Your task to perform on an android device: check the backup settings in the google photos Image 0: 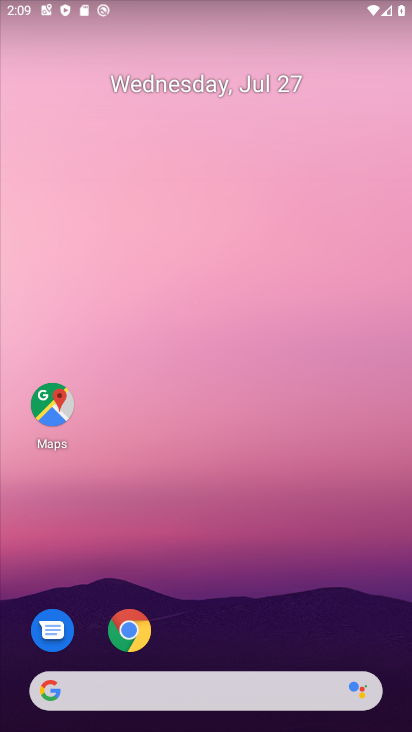
Step 0: drag from (391, 646) to (335, 134)
Your task to perform on an android device: check the backup settings in the google photos Image 1: 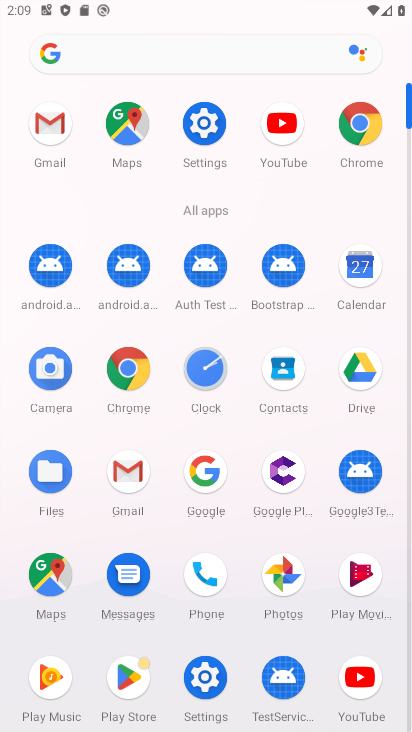
Step 1: click (284, 577)
Your task to perform on an android device: check the backup settings in the google photos Image 2: 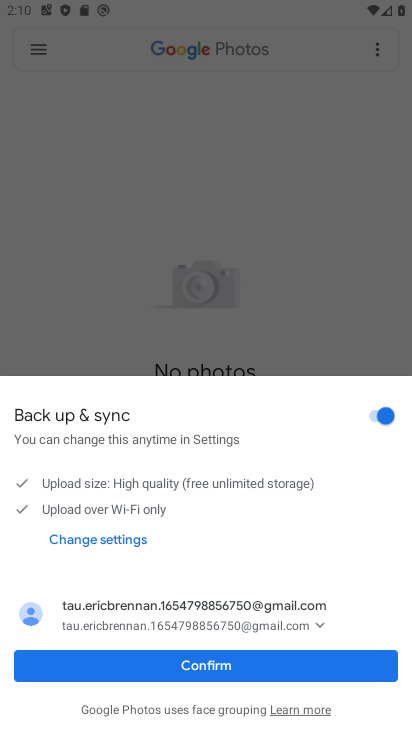
Step 2: click (202, 668)
Your task to perform on an android device: check the backup settings in the google photos Image 3: 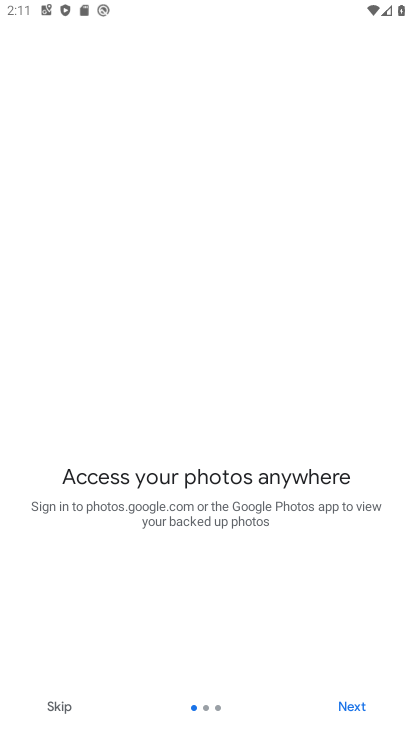
Step 3: click (350, 702)
Your task to perform on an android device: check the backup settings in the google photos Image 4: 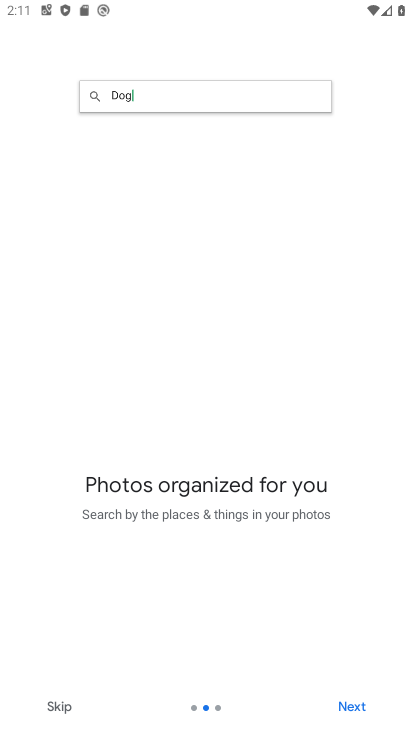
Step 4: click (350, 702)
Your task to perform on an android device: check the backup settings in the google photos Image 5: 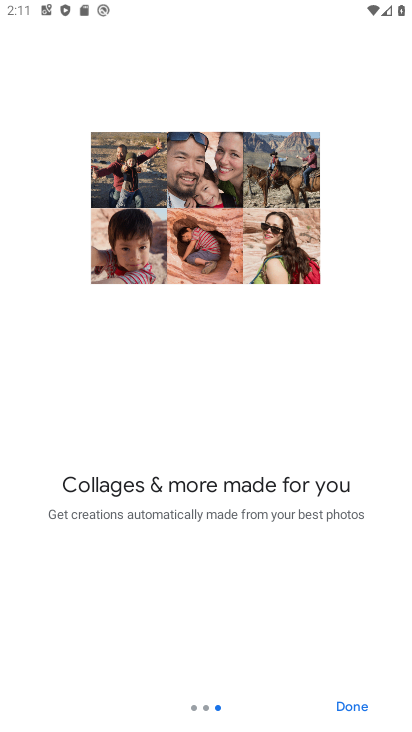
Step 5: click (350, 702)
Your task to perform on an android device: check the backup settings in the google photos Image 6: 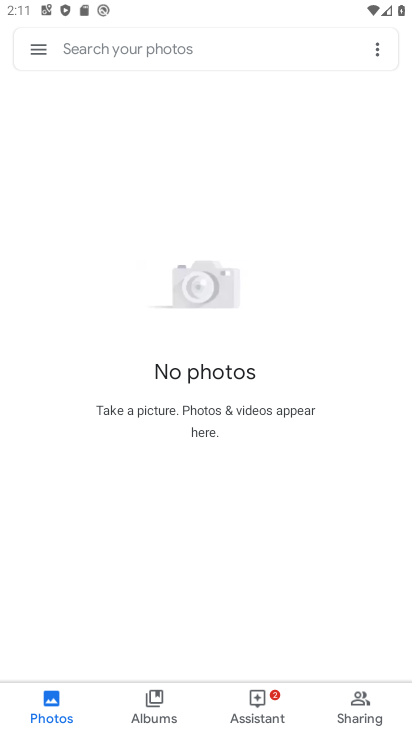
Step 6: click (32, 52)
Your task to perform on an android device: check the backup settings in the google photos Image 7: 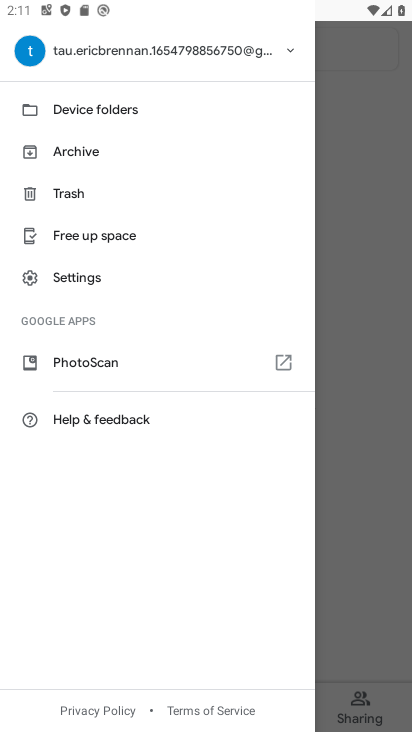
Step 7: click (65, 280)
Your task to perform on an android device: check the backup settings in the google photos Image 8: 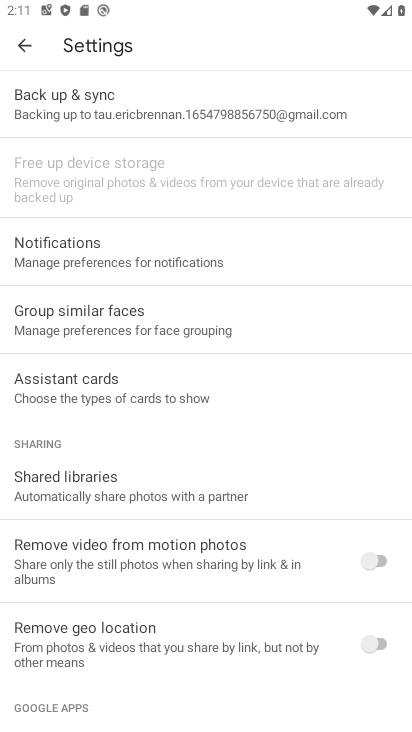
Step 8: task complete